Your task to perform on an android device: check battery use Image 0: 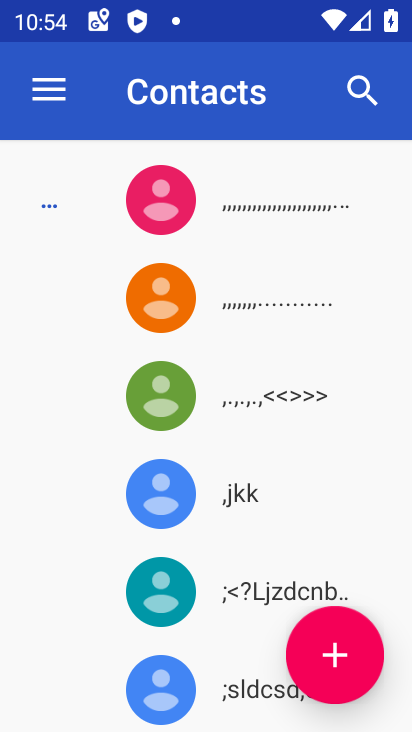
Step 0: press home button
Your task to perform on an android device: check battery use Image 1: 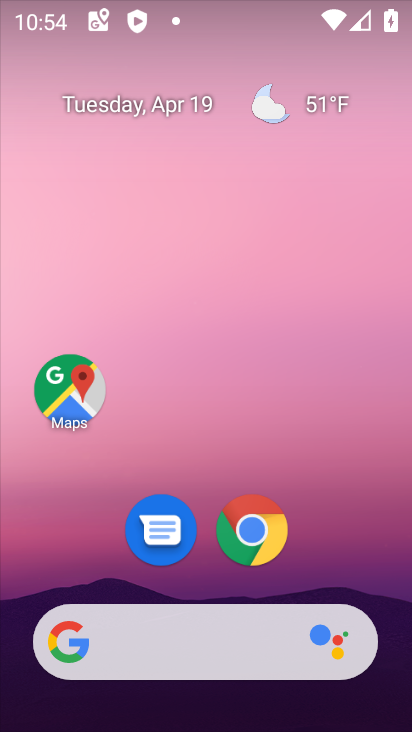
Step 1: drag from (332, 510) to (342, 82)
Your task to perform on an android device: check battery use Image 2: 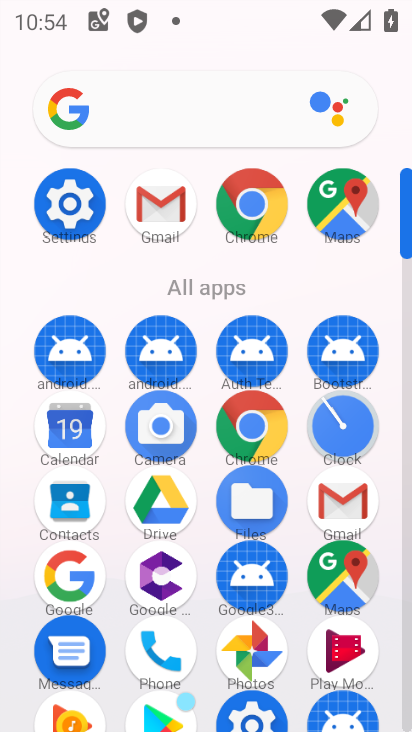
Step 2: click (86, 200)
Your task to perform on an android device: check battery use Image 3: 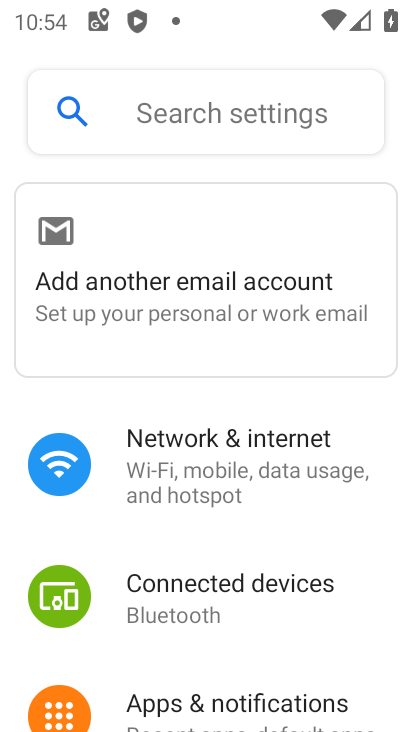
Step 3: drag from (276, 638) to (275, 245)
Your task to perform on an android device: check battery use Image 4: 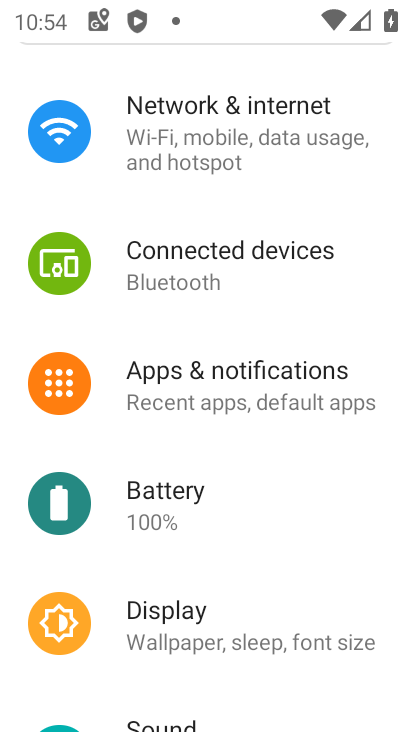
Step 4: click (214, 502)
Your task to perform on an android device: check battery use Image 5: 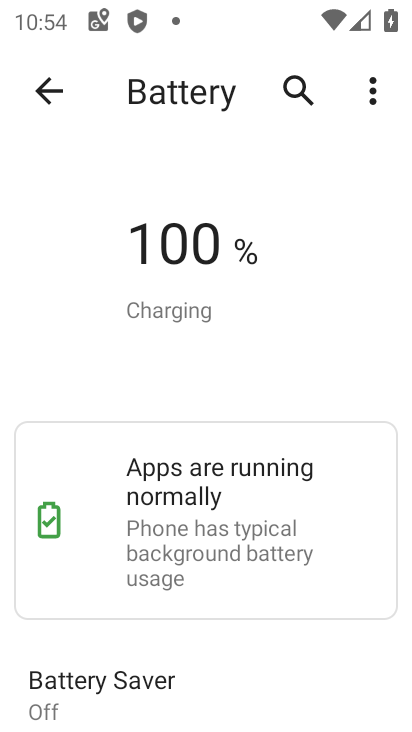
Step 5: click (371, 92)
Your task to perform on an android device: check battery use Image 6: 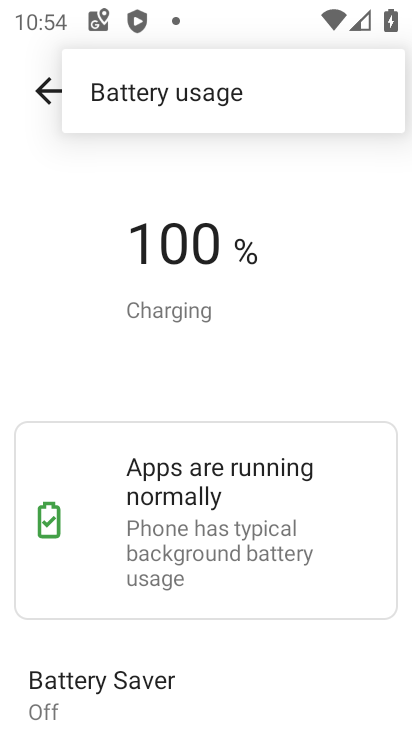
Step 6: click (262, 95)
Your task to perform on an android device: check battery use Image 7: 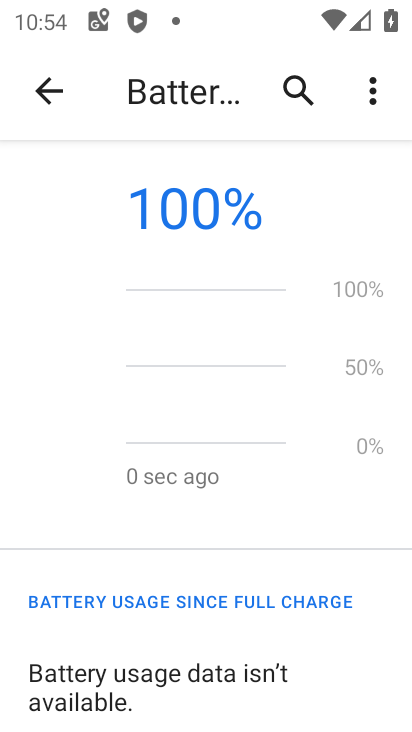
Step 7: task complete